Your task to perform on an android device: Add "bose quietcomfort 35" to the cart on walmart, then select checkout. Image 0: 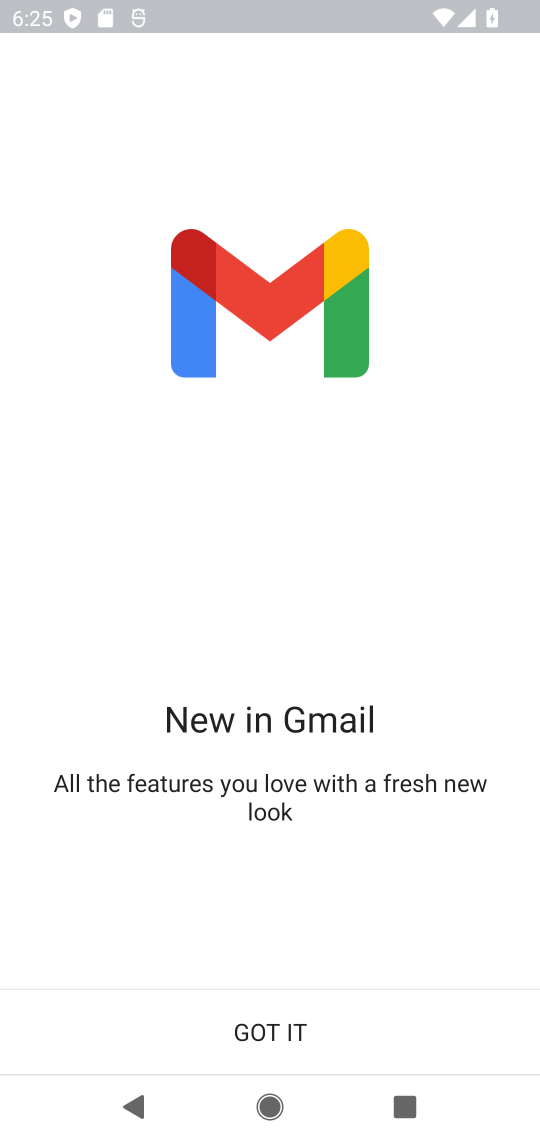
Step 0: press home button
Your task to perform on an android device: Add "bose quietcomfort 35" to the cart on walmart, then select checkout. Image 1: 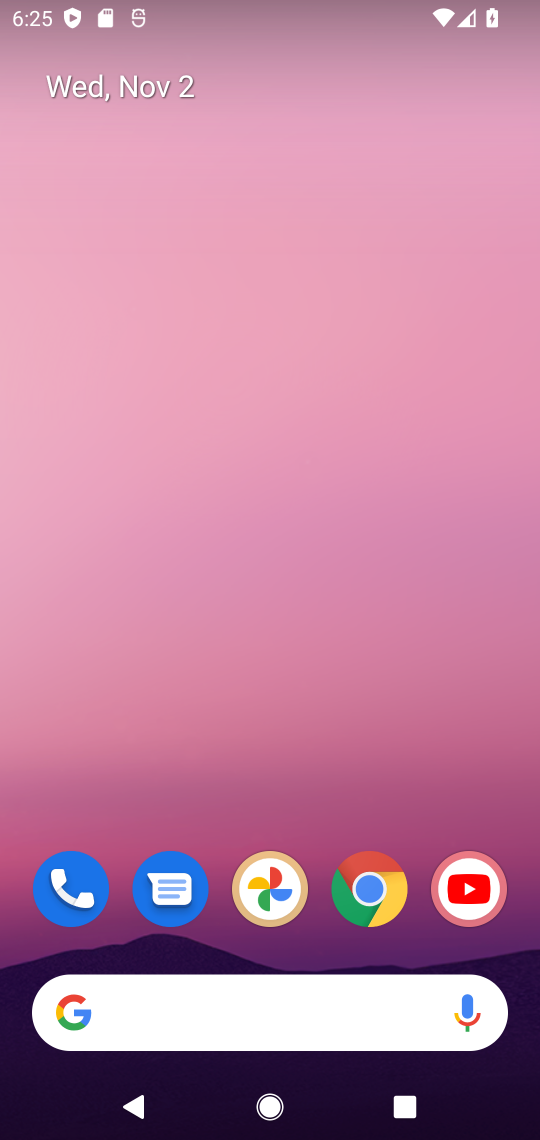
Step 1: click (384, 876)
Your task to perform on an android device: Add "bose quietcomfort 35" to the cart on walmart, then select checkout. Image 2: 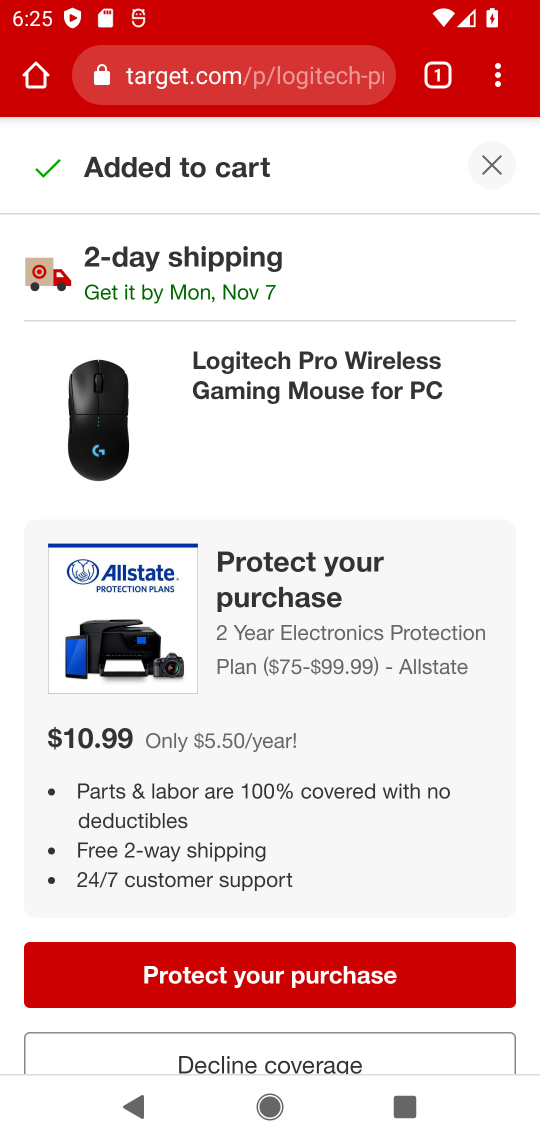
Step 2: click (298, 80)
Your task to perform on an android device: Add "bose quietcomfort 35" to the cart on walmart, then select checkout. Image 3: 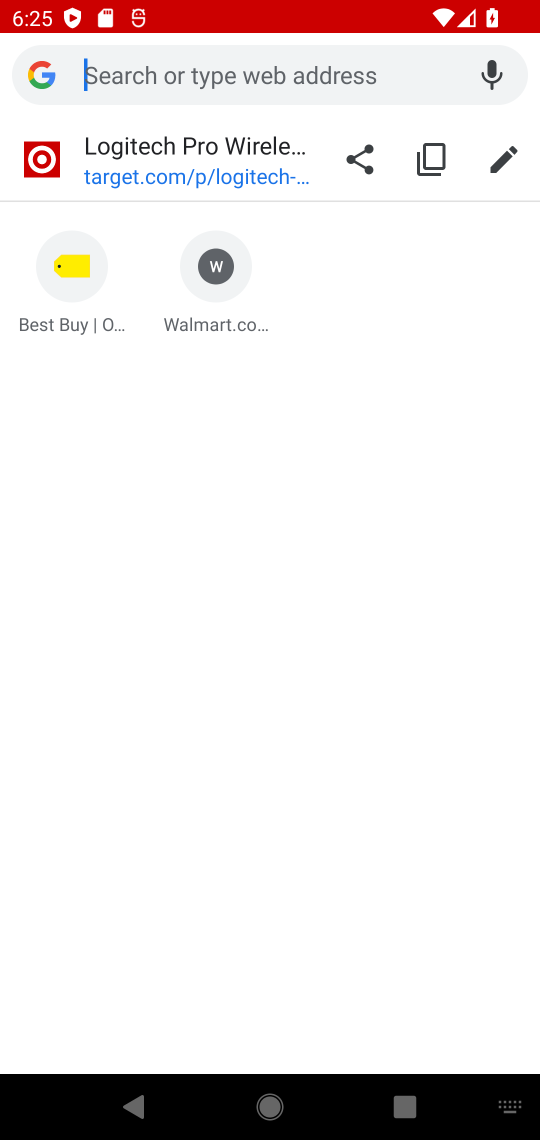
Step 3: type "walmart"
Your task to perform on an android device: Add "bose quietcomfort 35" to the cart on walmart, then select checkout. Image 4: 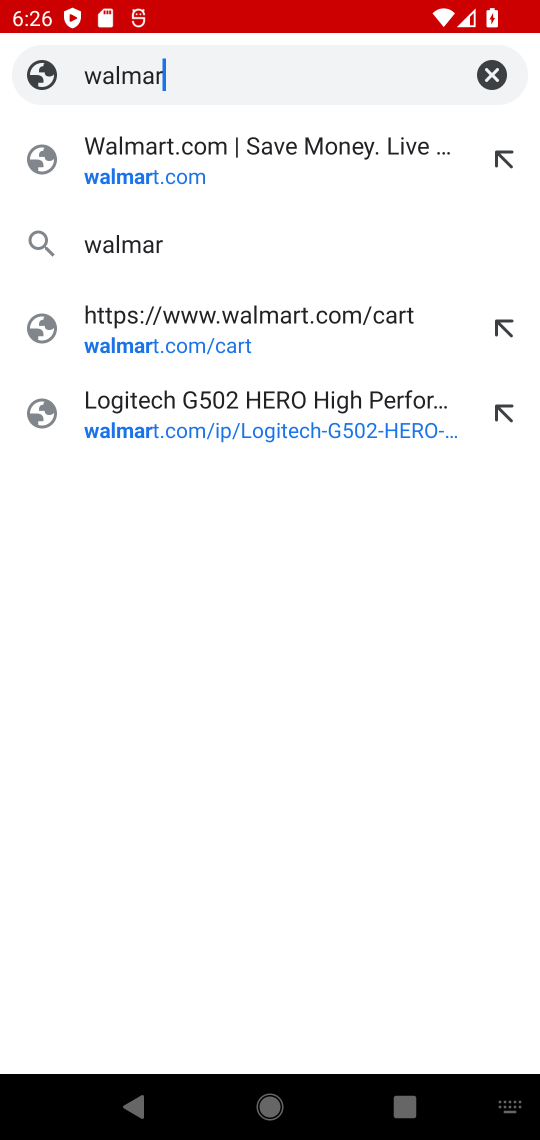
Step 4: press enter
Your task to perform on an android device: Add "bose quietcomfort 35" to the cart on walmart, then select checkout. Image 5: 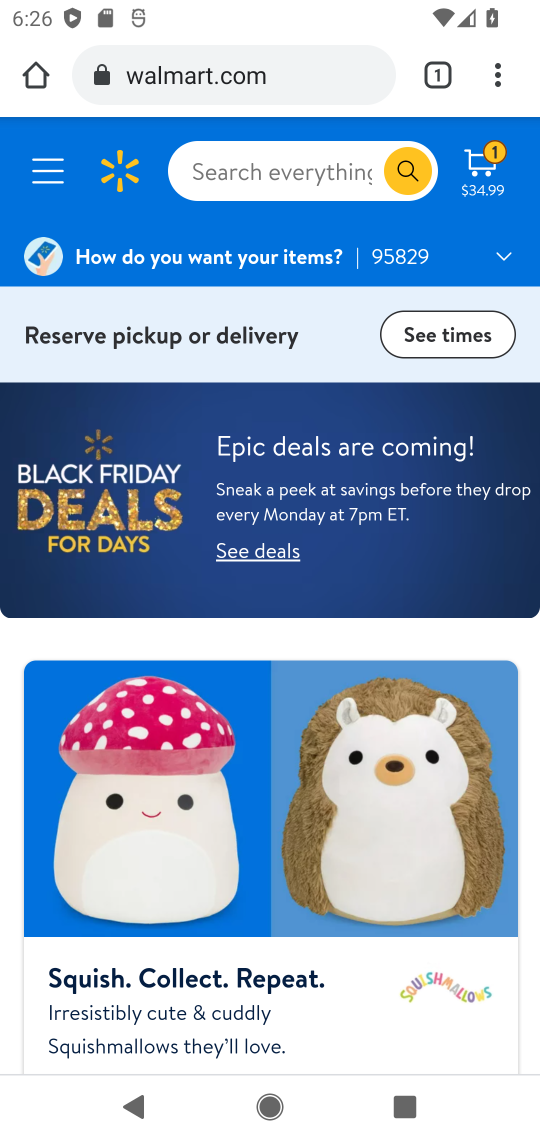
Step 5: click (262, 159)
Your task to perform on an android device: Add "bose quietcomfort 35" to the cart on walmart, then select checkout. Image 6: 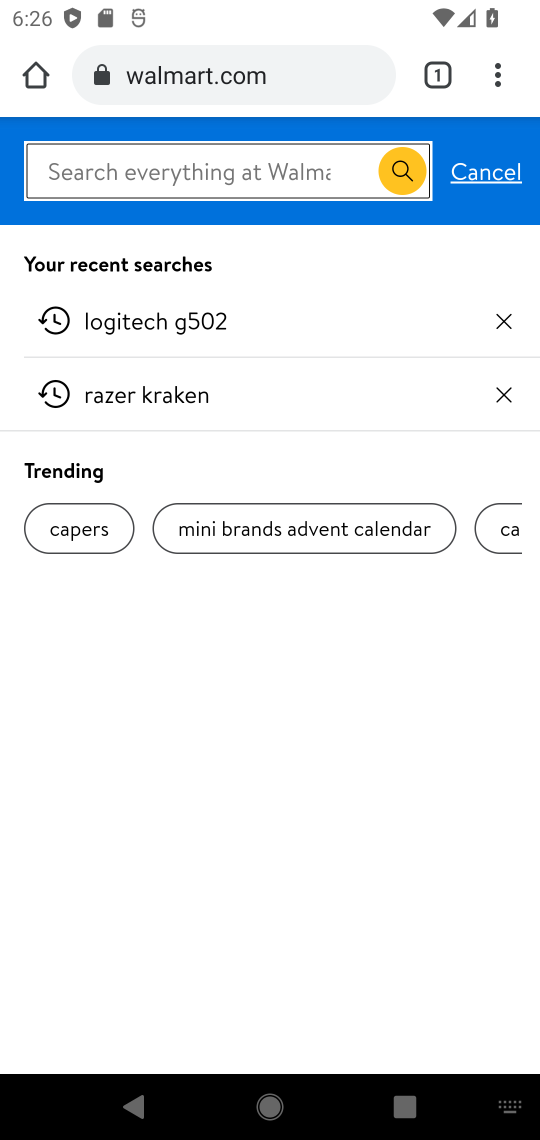
Step 6: type "bose quietcomfort 35"
Your task to perform on an android device: Add "bose quietcomfort 35" to the cart on walmart, then select checkout. Image 7: 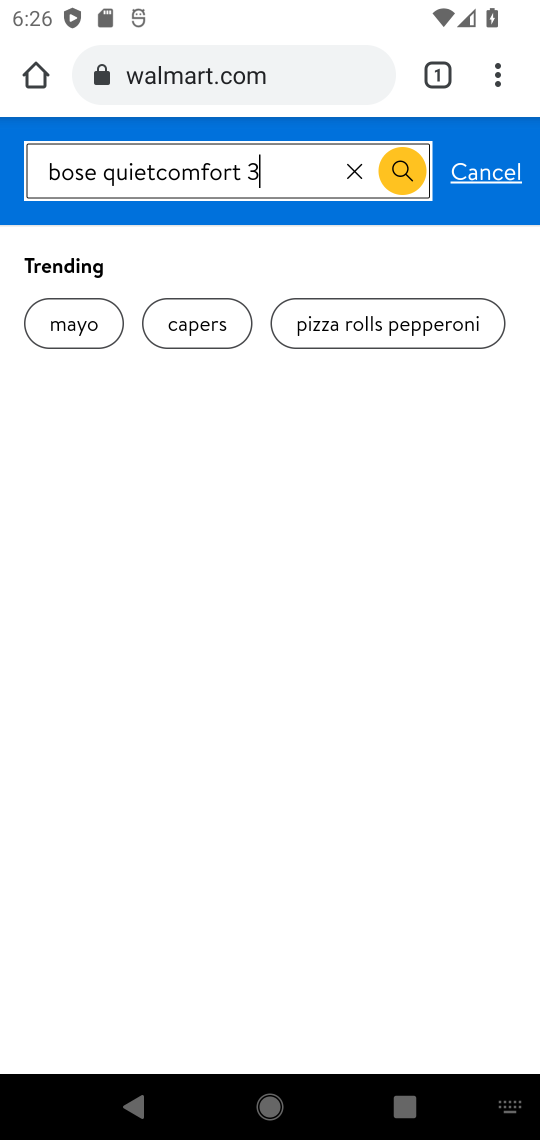
Step 7: press enter
Your task to perform on an android device: Add "bose quietcomfort 35" to the cart on walmart, then select checkout. Image 8: 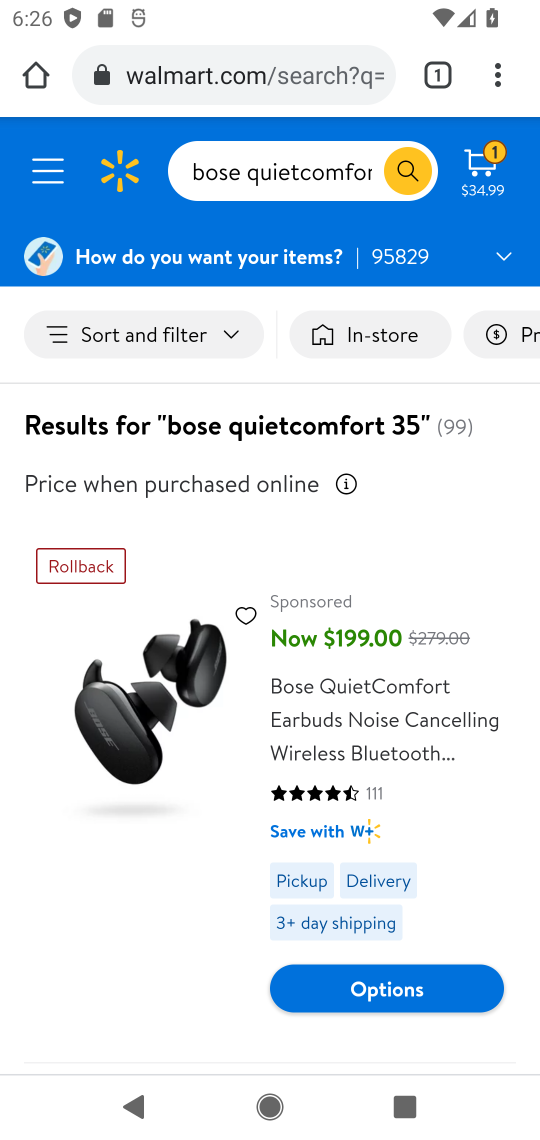
Step 8: drag from (163, 873) to (116, 529)
Your task to perform on an android device: Add "bose quietcomfort 35" to the cart on walmart, then select checkout. Image 9: 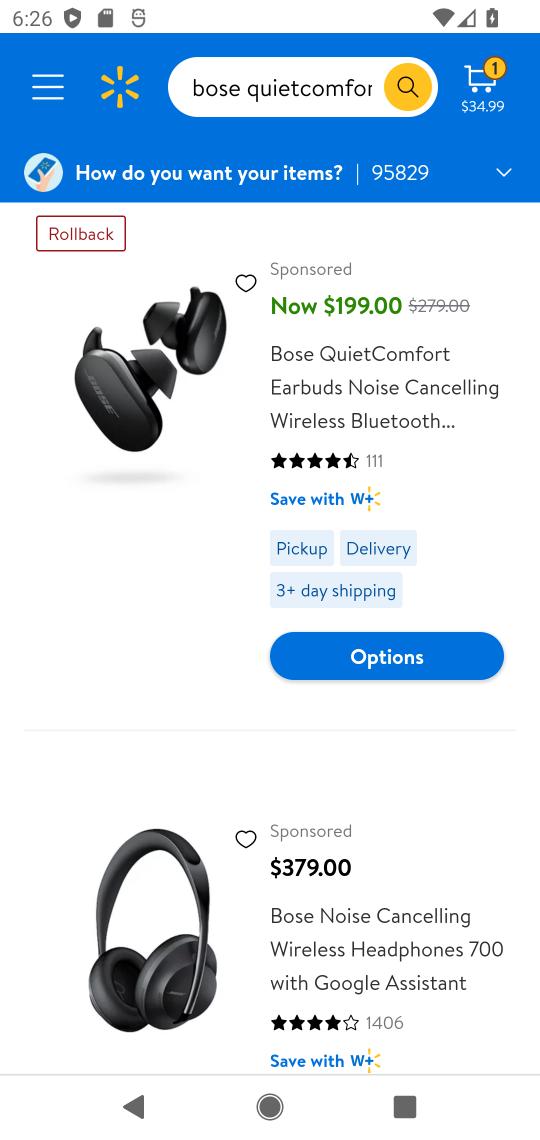
Step 9: drag from (392, 945) to (386, 437)
Your task to perform on an android device: Add "bose quietcomfort 35" to the cart on walmart, then select checkout. Image 10: 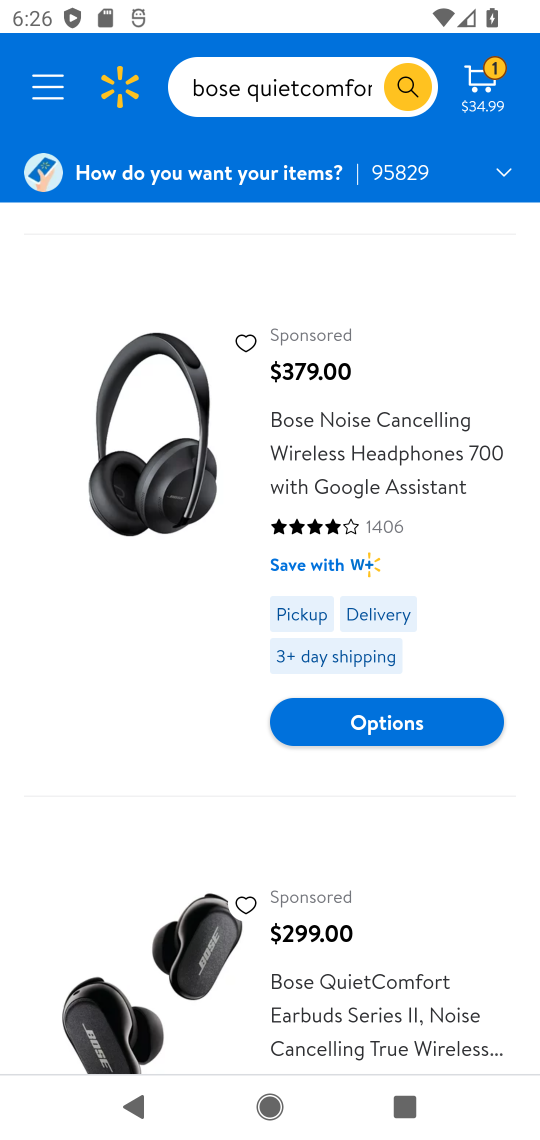
Step 10: drag from (302, 928) to (326, 385)
Your task to perform on an android device: Add "bose quietcomfort 35" to the cart on walmart, then select checkout. Image 11: 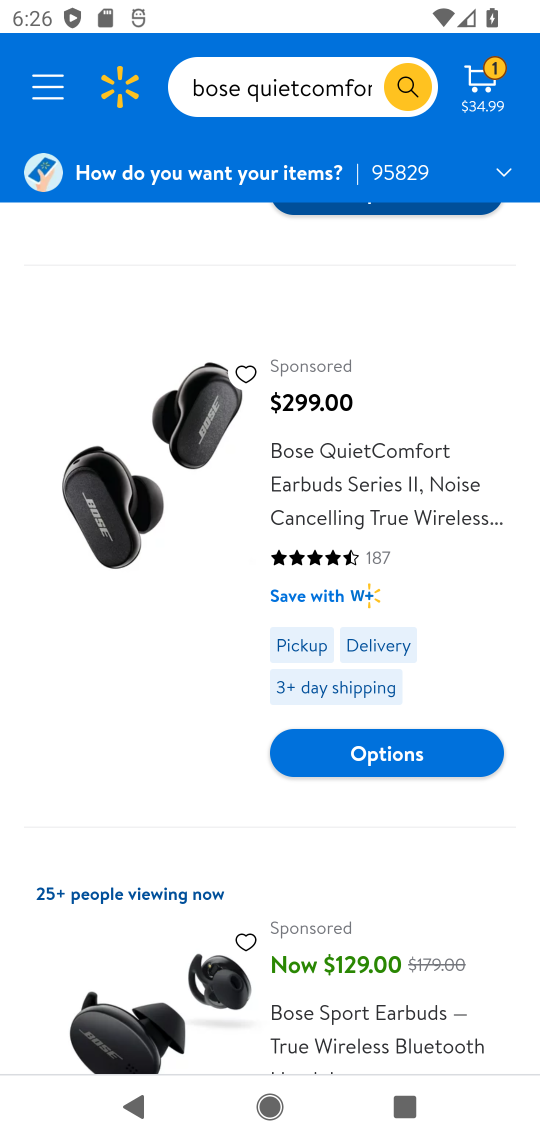
Step 11: drag from (349, 968) to (300, 359)
Your task to perform on an android device: Add "bose quietcomfort 35" to the cart on walmart, then select checkout. Image 12: 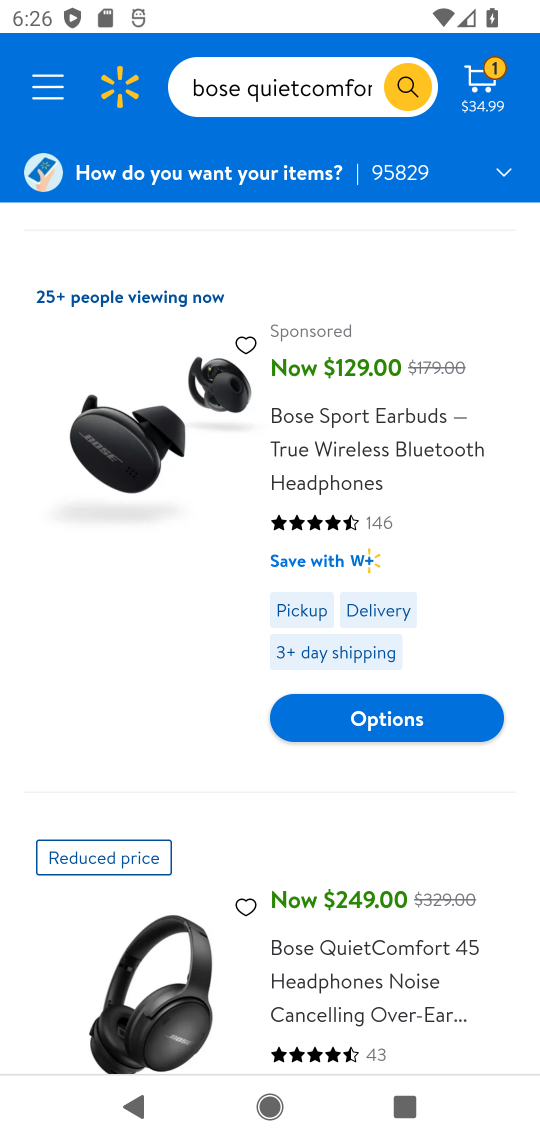
Step 12: drag from (349, 967) to (370, 513)
Your task to perform on an android device: Add "bose quietcomfort 35" to the cart on walmart, then select checkout. Image 13: 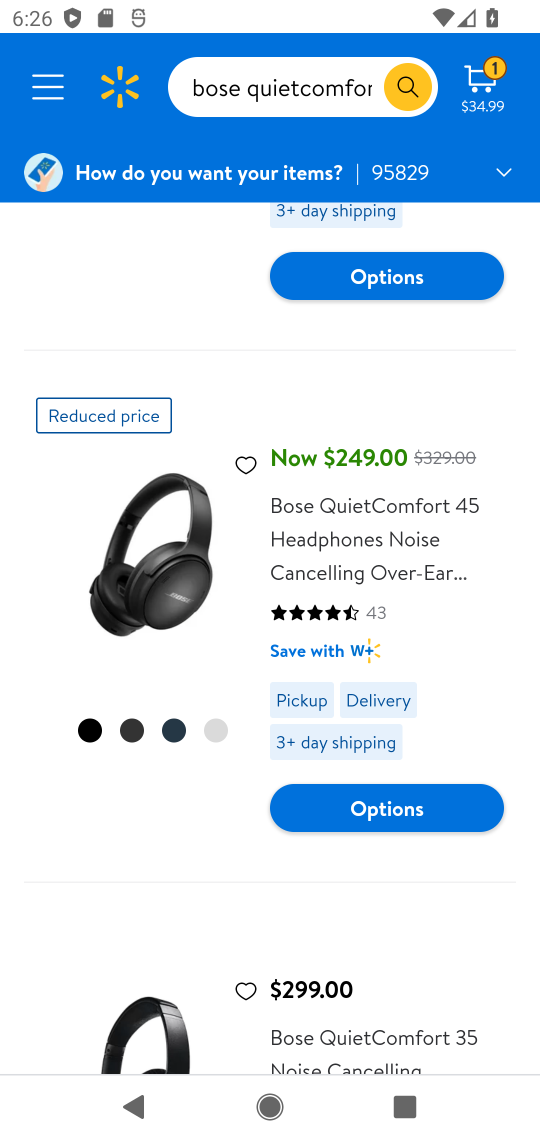
Step 13: click (105, 1029)
Your task to perform on an android device: Add "bose quietcomfort 35" to the cart on walmart, then select checkout. Image 14: 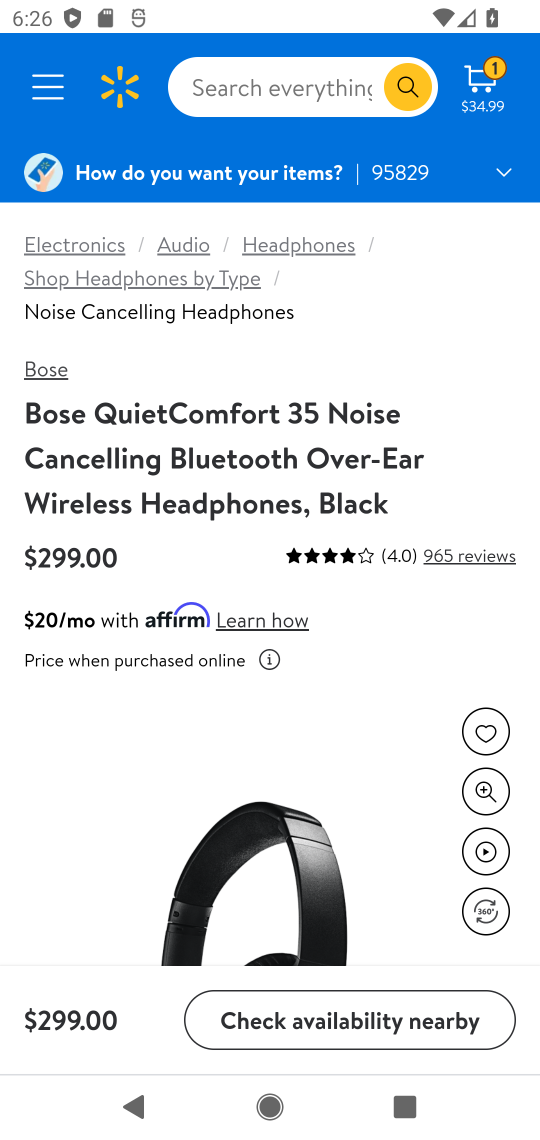
Step 14: drag from (299, 782) to (299, 420)
Your task to perform on an android device: Add "bose quietcomfort 35" to the cart on walmart, then select checkout. Image 15: 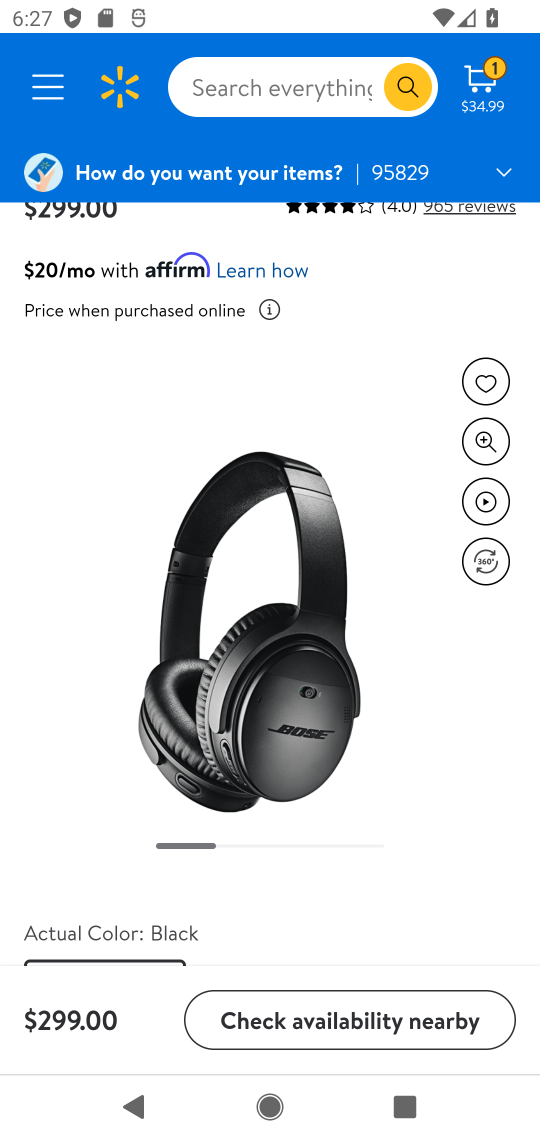
Step 15: drag from (345, 616) to (327, 454)
Your task to perform on an android device: Add "bose quietcomfort 35" to the cart on walmart, then select checkout. Image 16: 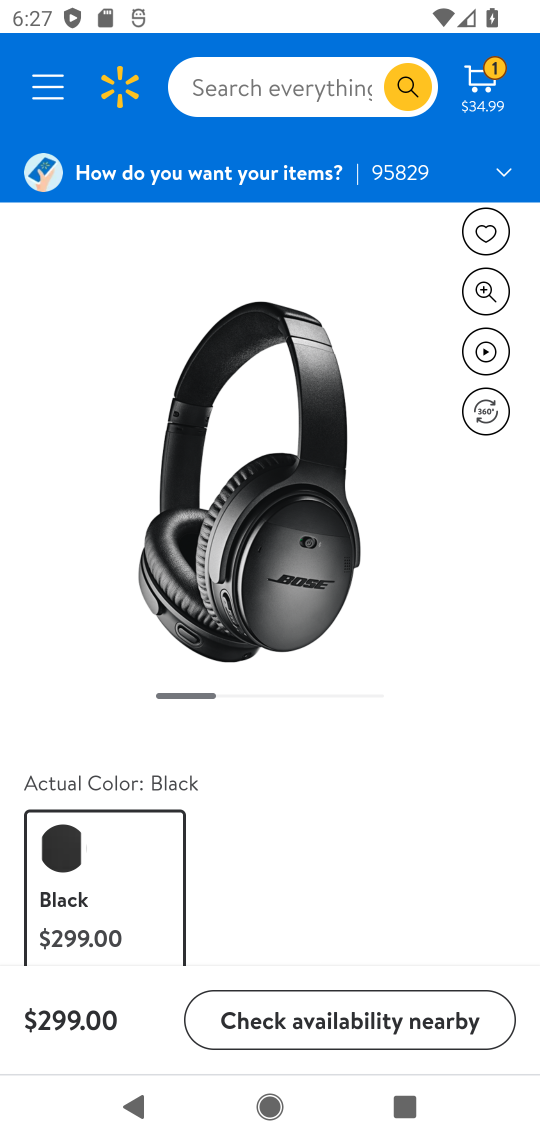
Step 16: drag from (323, 821) to (230, 396)
Your task to perform on an android device: Add "bose quietcomfort 35" to the cart on walmart, then select checkout. Image 17: 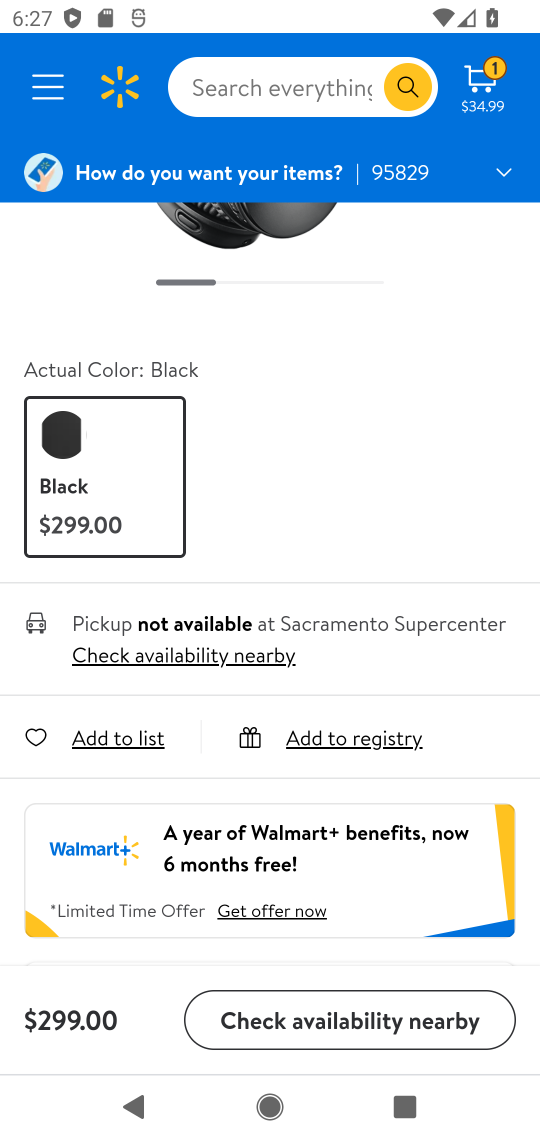
Step 17: drag from (377, 902) to (237, 486)
Your task to perform on an android device: Add "bose quietcomfort 35" to the cart on walmart, then select checkout. Image 18: 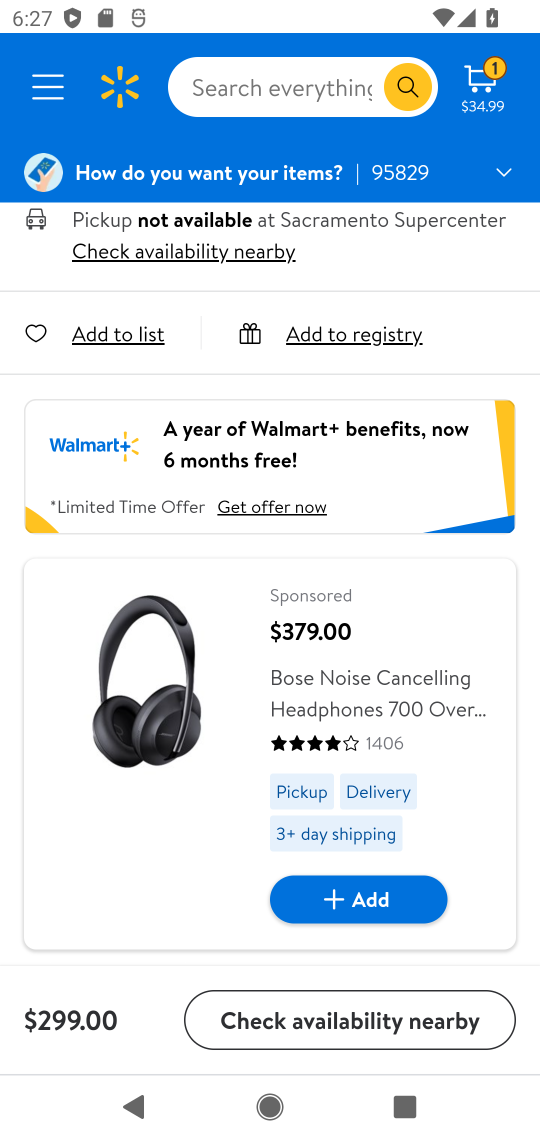
Step 18: drag from (337, 456) to (423, 943)
Your task to perform on an android device: Add "bose quietcomfort 35" to the cart on walmart, then select checkout. Image 19: 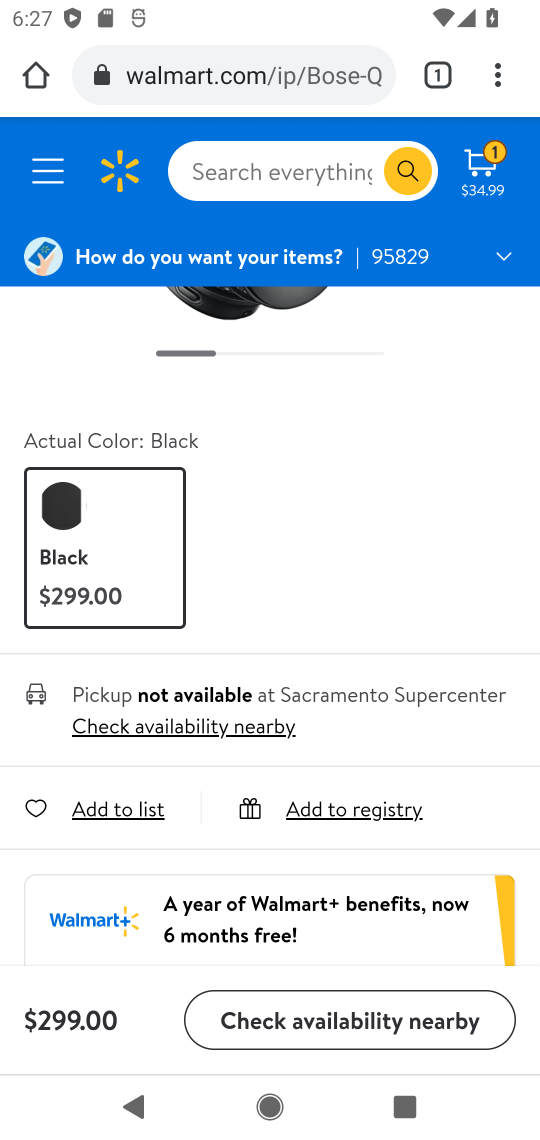
Step 19: click (113, 808)
Your task to perform on an android device: Add "bose quietcomfort 35" to the cart on walmart, then select checkout. Image 20: 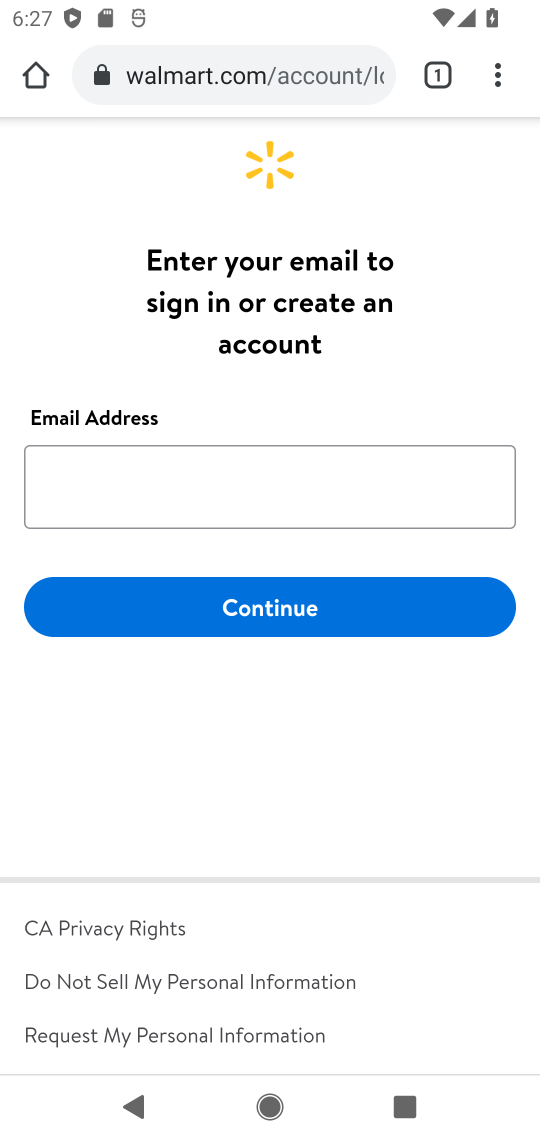
Step 20: press back button
Your task to perform on an android device: Add "bose quietcomfort 35" to the cart on walmart, then select checkout. Image 21: 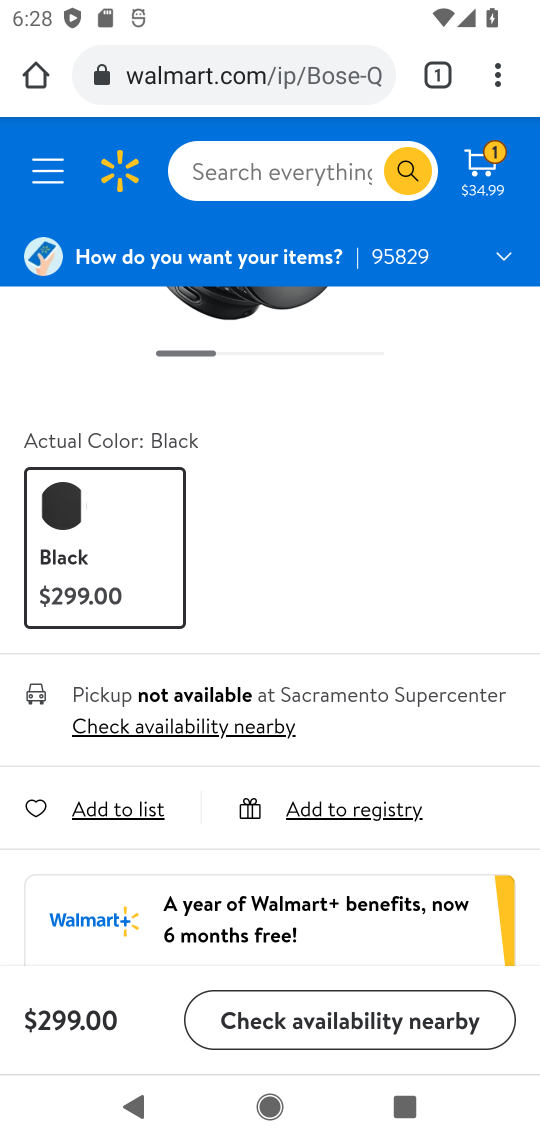
Step 21: click (479, 157)
Your task to perform on an android device: Add "bose quietcomfort 35" to the cart on walmart, then select checkout. Image 22: 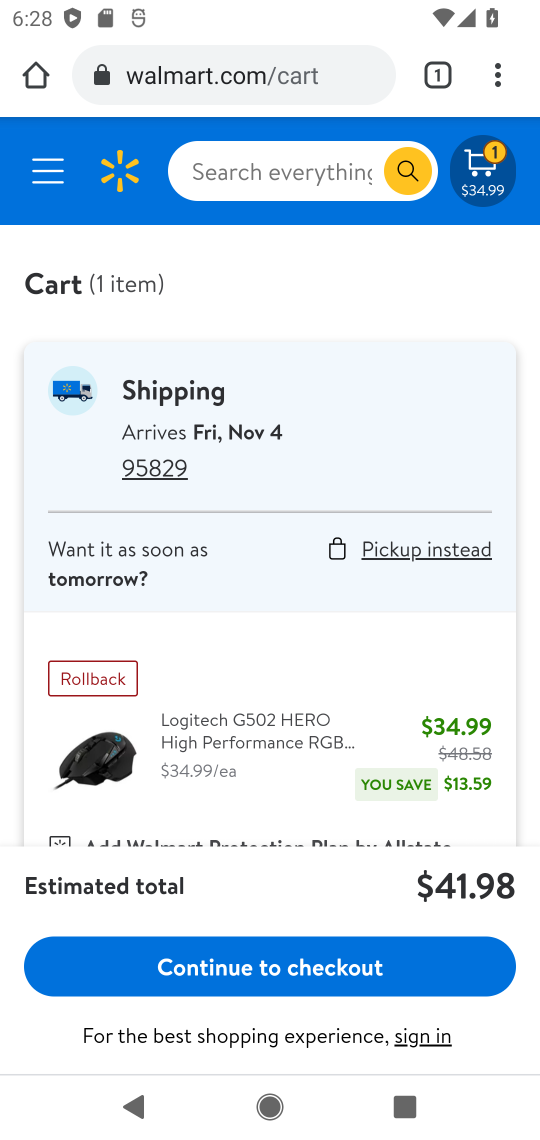
Step 22: click (350, 955)
Your task to perform on an android device: Add "bose quietcomfort 35" to the cart on walmart, then select checkout. Image 23: 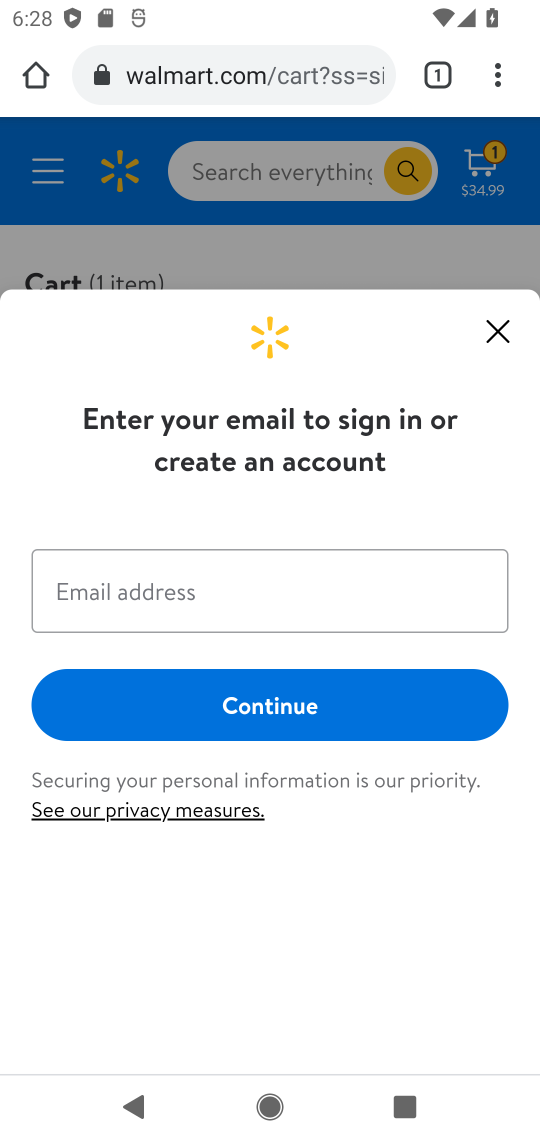
Step 23: task complete